Your task to perform on an android device: Open Yahoo.com Image 0: 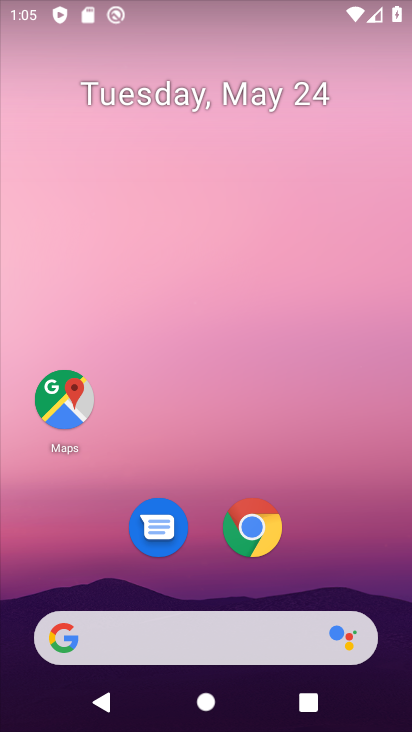
Step 0: click (258, 544)
Your task to perform on an android device: Open Yahoo.com Image 1: 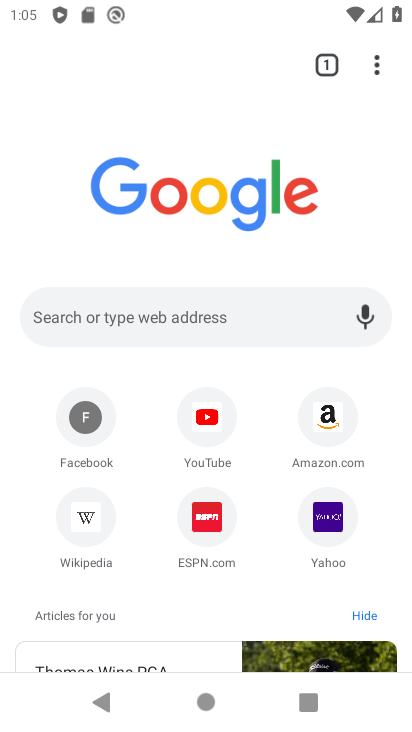
Step 1: click (329, 539)
Your task to perform on an android device: Open Yahoo.com Image 2: 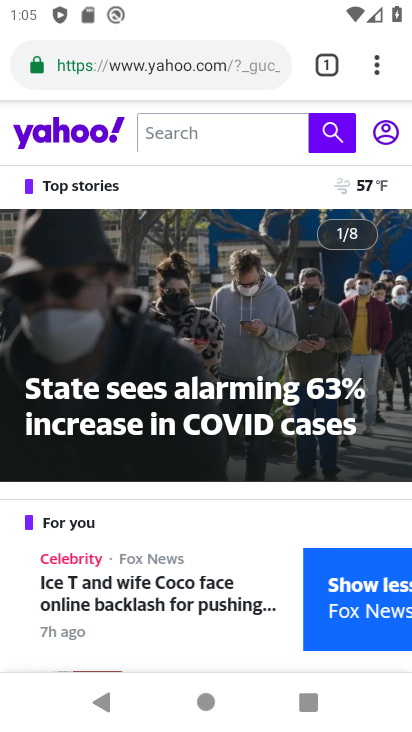
Step 2: task complete